Your task to perform on an android device: Open calendar and show me the fourth week of next month Image 0: 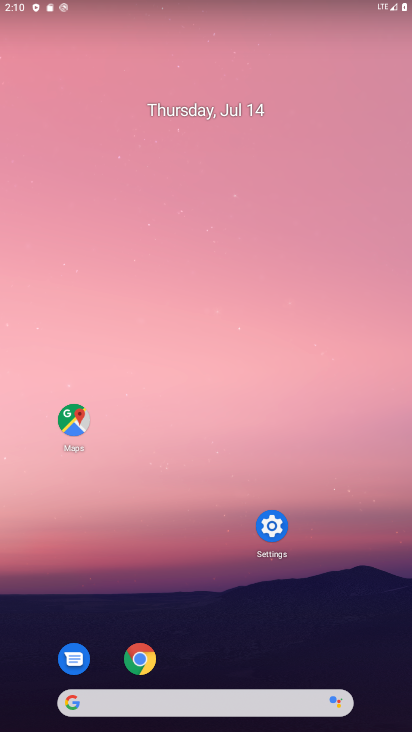
Step 0: drag from (234, 720) to (410, 71)
Your task to perform on an android device: Open calendar and show me the fourth week of next month Image 1: 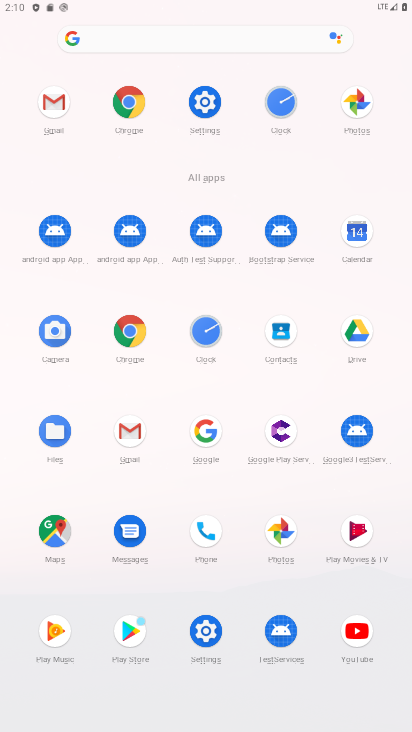
Step 1: click (347, 259)
Your task to perform on an android device: Open calendar and show me the fourth week of next month Image 2: 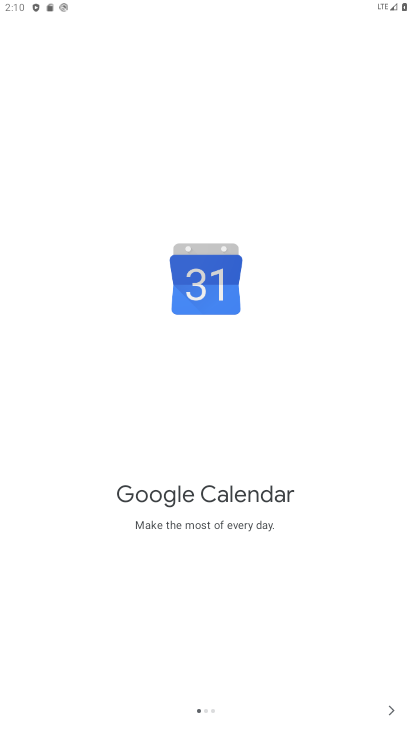
Step 2: click (386, 712)
Your task to perform on an android device: Open calendar and show me the fourth week of next month Image 3: 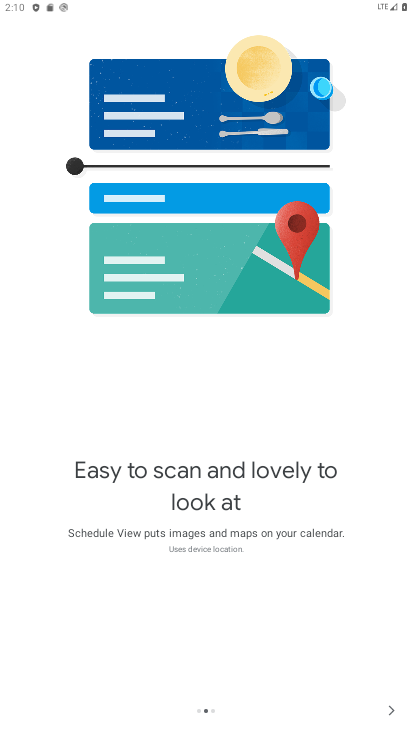
Step 3: click (383, 709)
Your task to perform on an android device: Open calendar and show me the fourth week of next month Image 4: 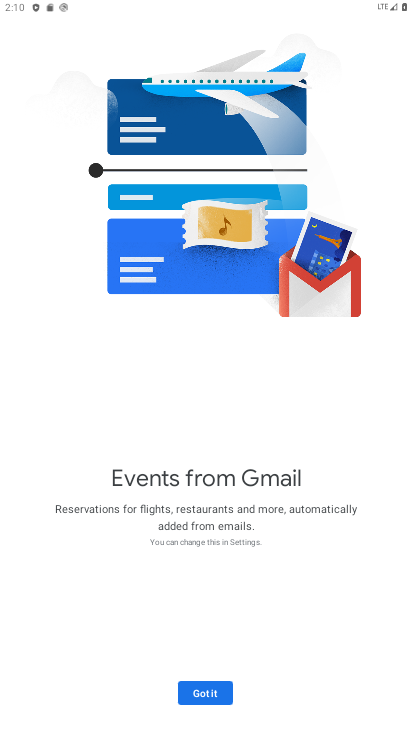
Step 4: click (194, 696)
Your task to perform on an android device: Open calendar and show me the fourth week of next month Image 5: 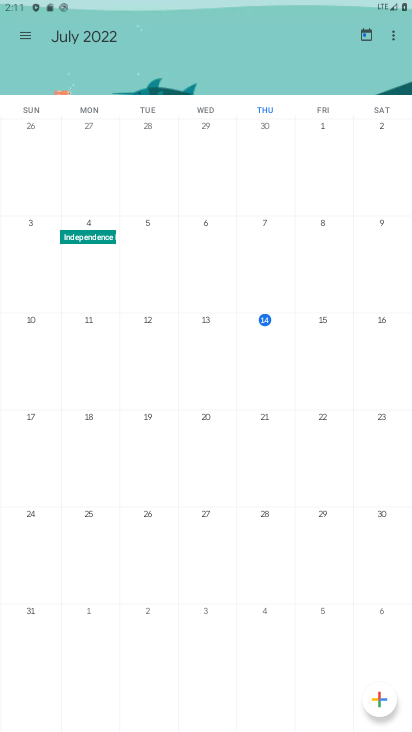
Step 5: drag from (372, 475) to (0, 525)
Your task to perform on an android device: Open calendar and show me the fourth week of next month Image 6: 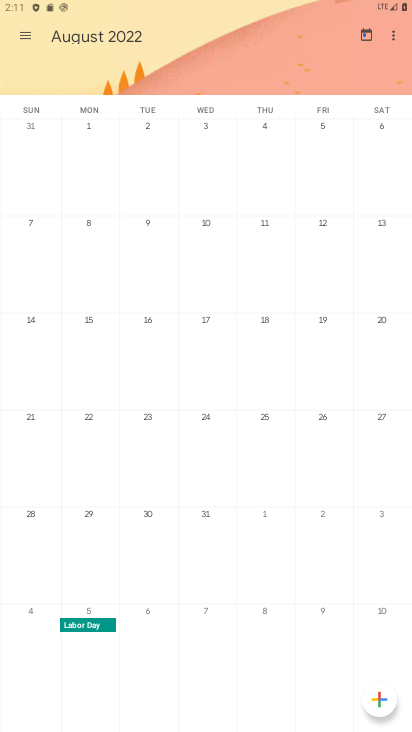
Step 6: click (78, 422)
Your task to perform on an android device: Open calendar and show me the fourth week of next month Image 7: 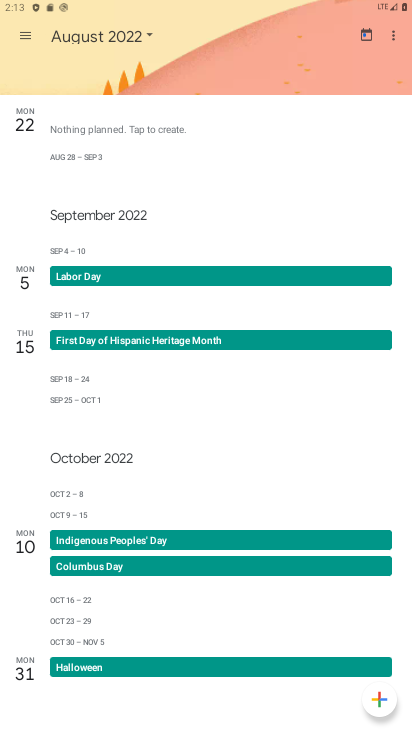
Step 7: task complete